Your task to perform on an android device: turn on sleep mode Image 0: 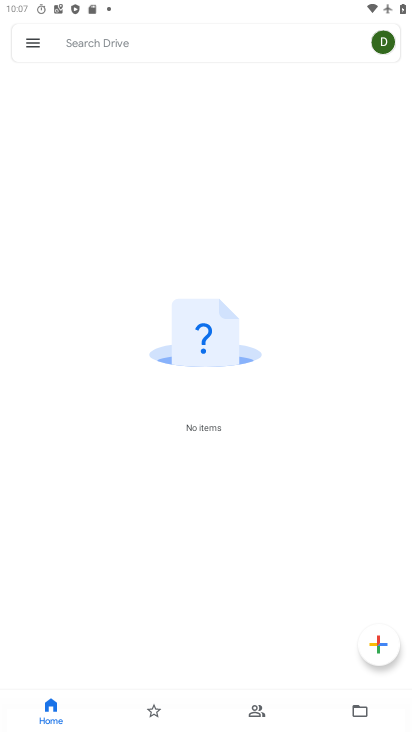
Step 0: press home button
Your task to perform on an android device: turn on sleep mode Image 1: 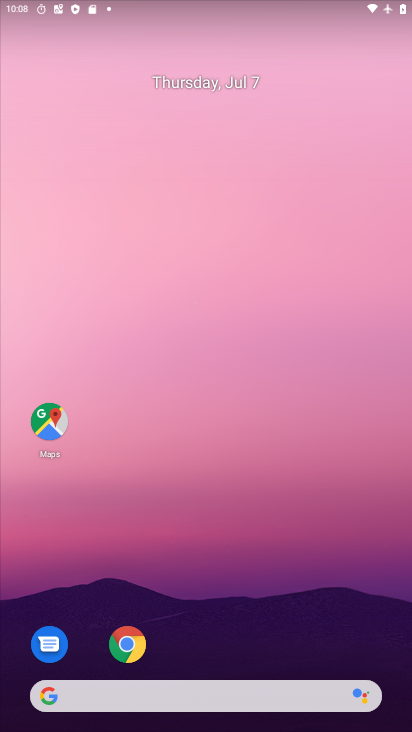
Step 1: drag from (298, 588) to (205, 51)
Your task to perform on an android device: turn on sleep mode Image 2: 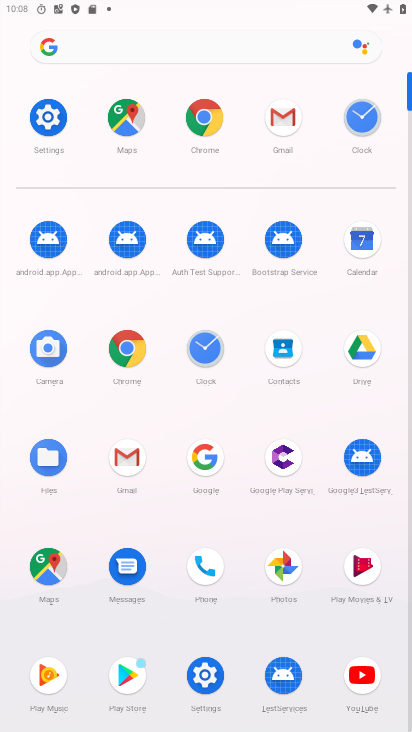
Step 2: click (46, 116)
Your task to perform on an android device: turn on sleep mode Image 3: 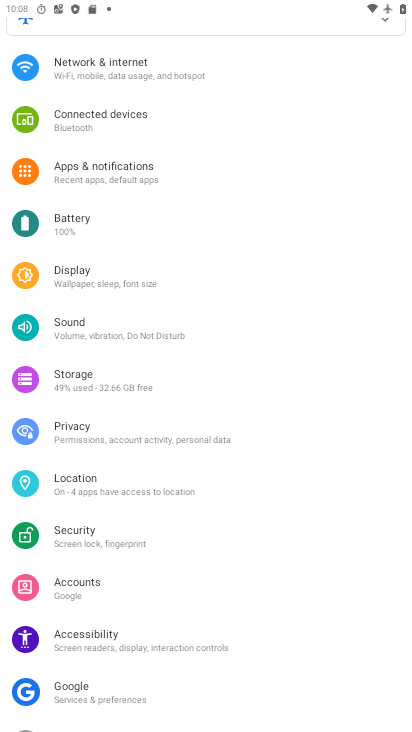
Step 3: click (91, 287)
Your task to perform on an android device: turn on sleep mode Image 4: 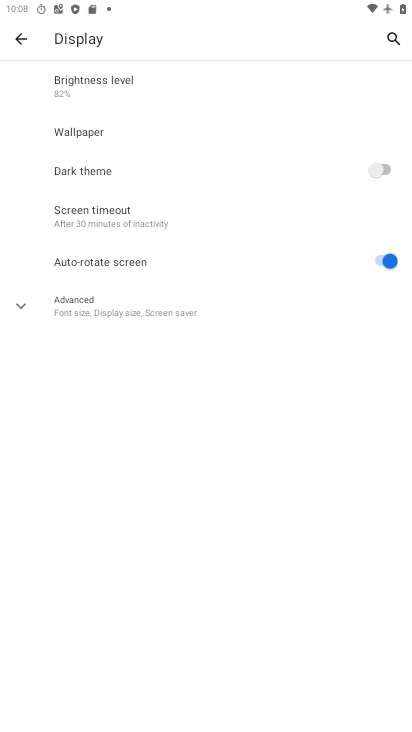
Step 4: click (158, 219)
Your task to perform on an android device: turn on sleep mode Image 5: 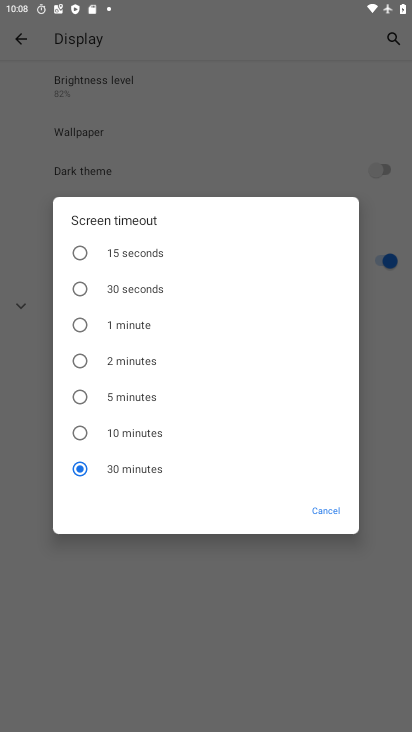
Step 5: task complete